Your task to perform on an android device: Open settings Image 0: 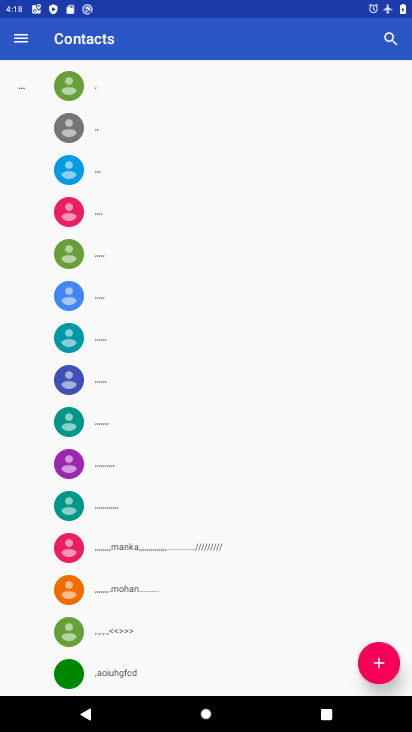
Step 0: press home button
Your task to perform on an android device: Open settings Image 1: 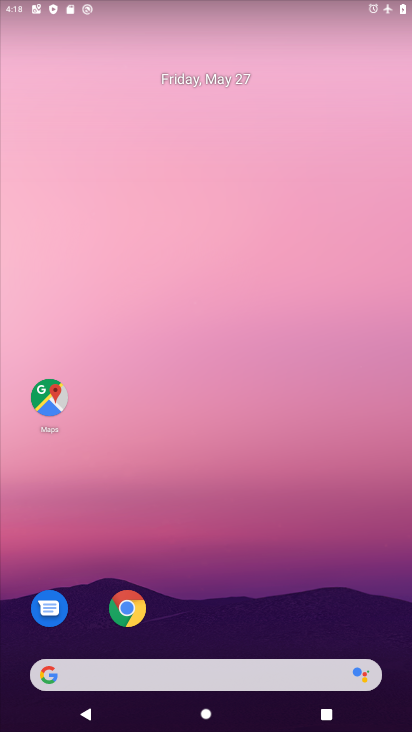
Step 1: drag from (168, 655) to (168, 247)
Your task to perform on an android device: Open settings Image 2: 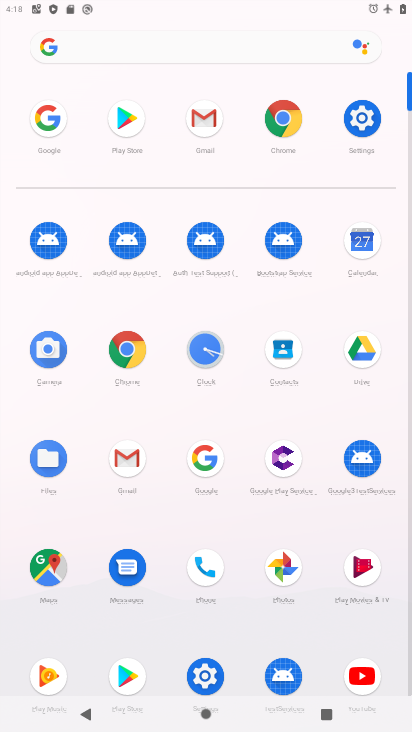
Step 2: click (200, 673)
Your task to perform on an android device: Open settings Image 3: 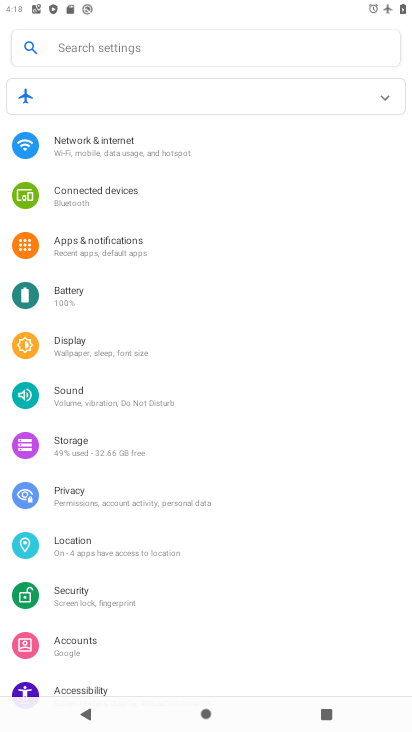
Step 3: task complete